Your task to perform on an android device: clear history in the chrome app Image 0: 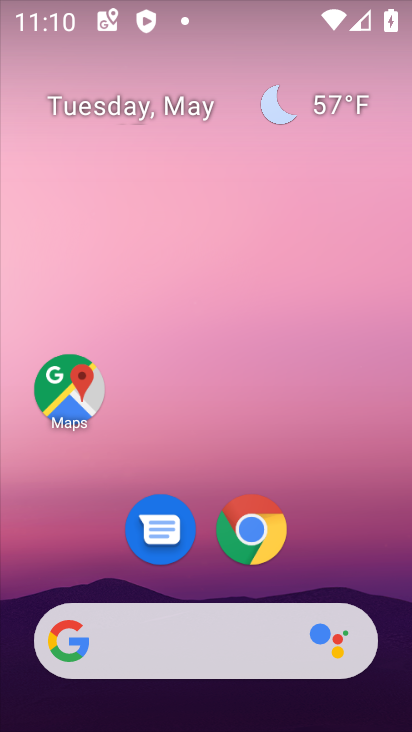
Step 0: click (250, 532)
Your task to perform on an android device: clear history in the chrome app Image 1: 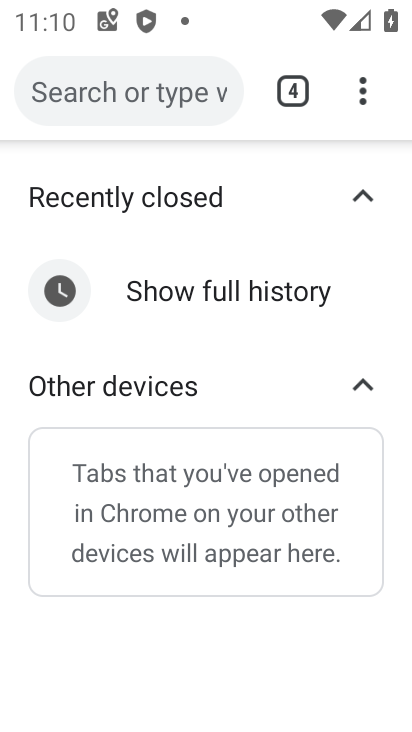
Step 1: click (352, 73)
Your task to perform on an android device: clear history in the chrome app Image 2: 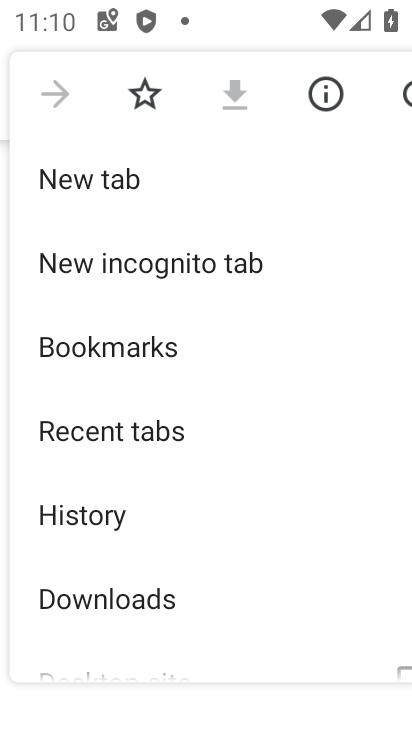
Step 2: drag from (101, 625) to (118, 81)
Your task to perform on an android device: clear history in the chrome app Image 3: 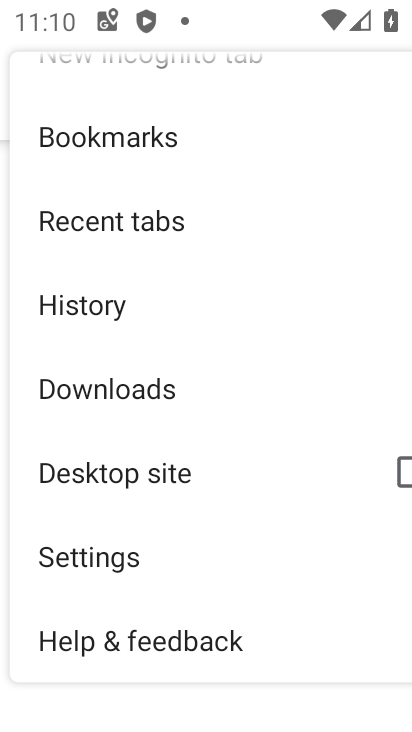
Step 3: click (145, 316)
Your task to perform on an android device: clear history in the chrome app Image 4: 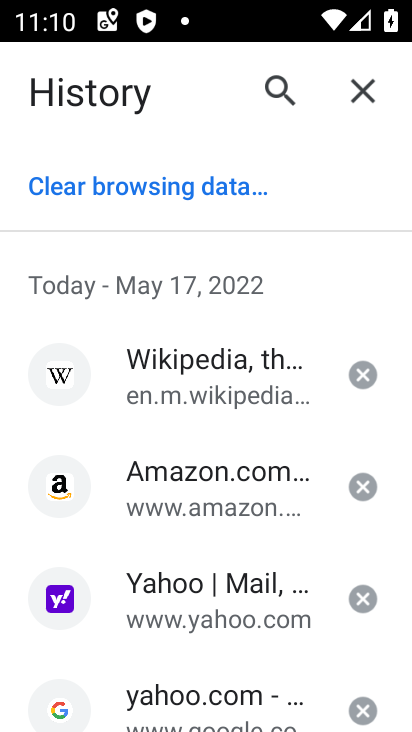
Step 4: click (149, 173)
Your task to perform on an android device: clear history in the chrome app Image 5: 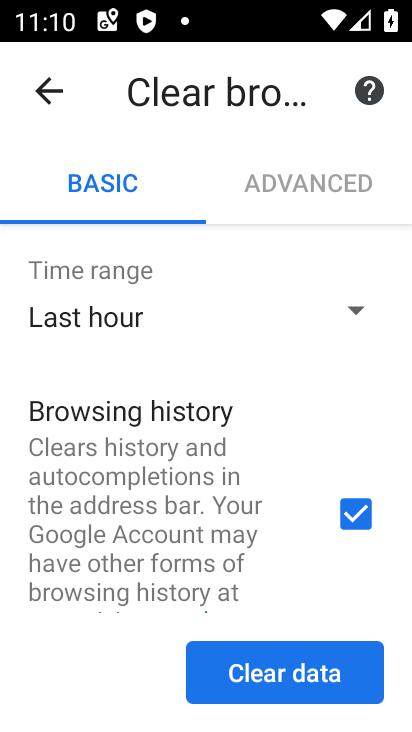
Step 5: click (267, 694)
Your task to perform on an android device: clear history in the chrome app Image 6: 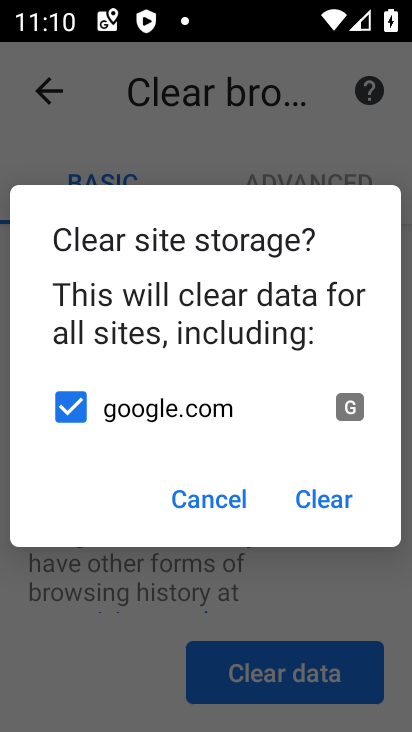
Step 6: click (307, 515)
Your task to perform on an android device: clear history in the chrome app Image 7: 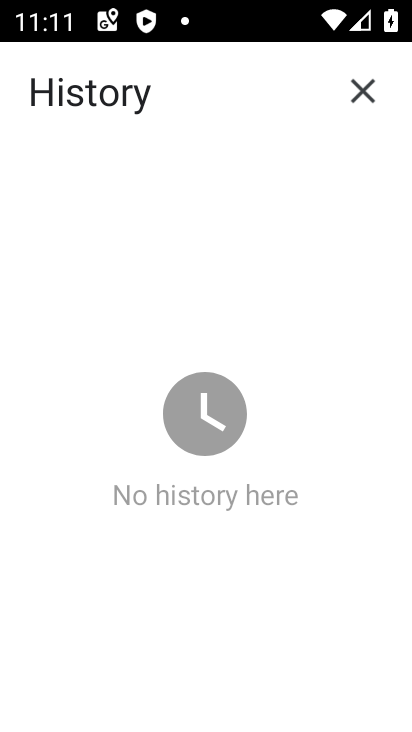
Step 7: task complete